Your task to perform on an android device: add a contact Image 0: 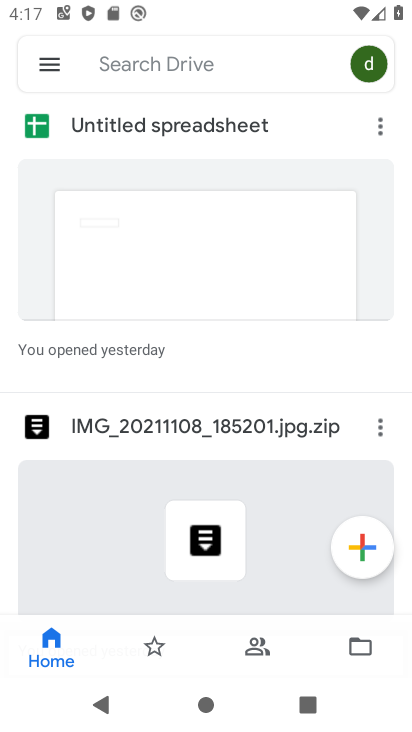
Step 0: press home button
Your task to perform on an android device: add a contact Image 1: 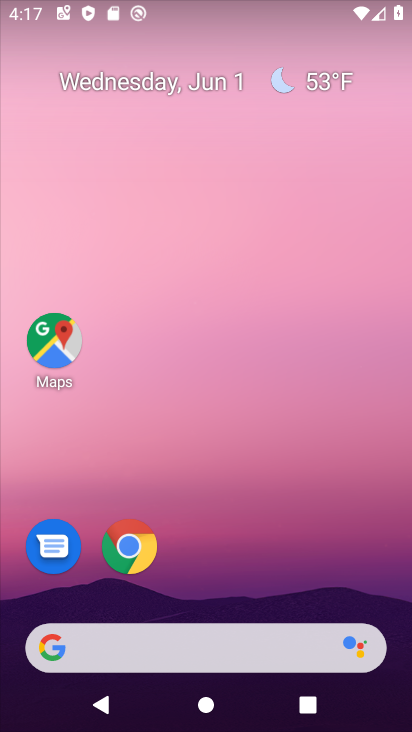
Step 1: drag from (208, 543) to (156, 162)
Your task to perform on an android device: add a contact Image 2: 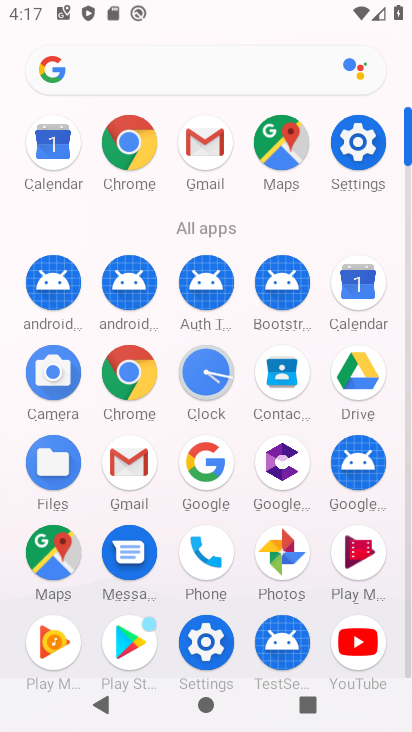
Step 2: click (267, 372)
Your task to perform on an android device: add a contact Image 3: 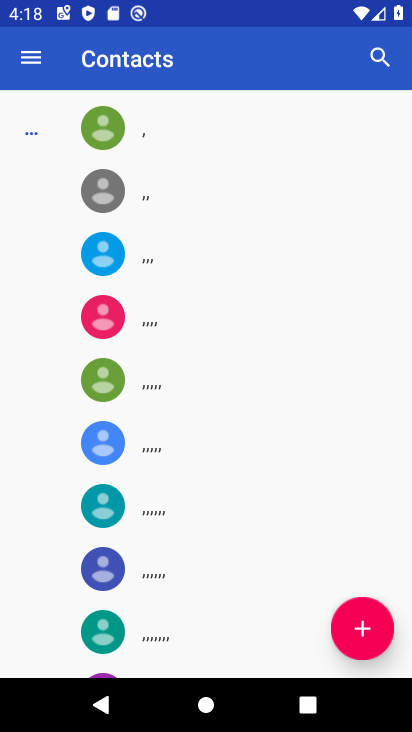
Step 3: click (362, 631)
Your task to perform on an android device: add a contact Image 4: 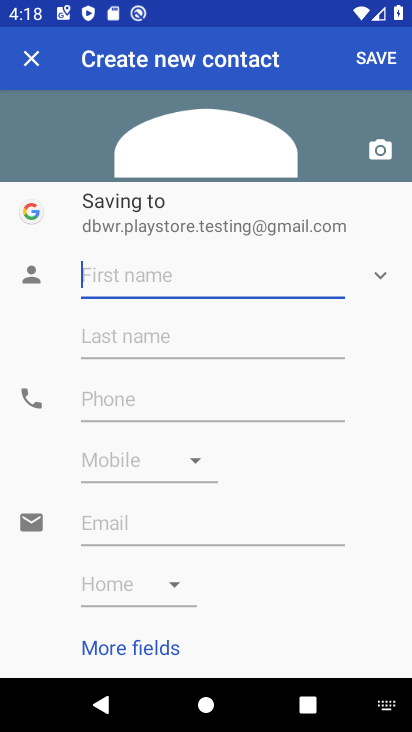
Step 4: type "gfhgff"
Your task to perform on an android device: add a contact Image 5: 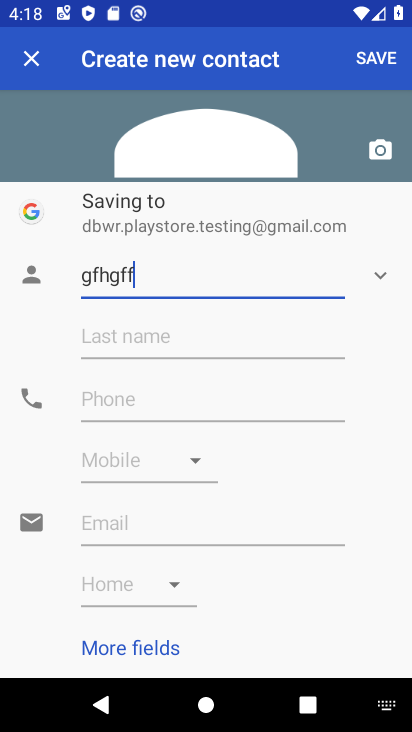
Step 5: click (158, 398)
Your task to perform on an android device: add a contact Image 6: 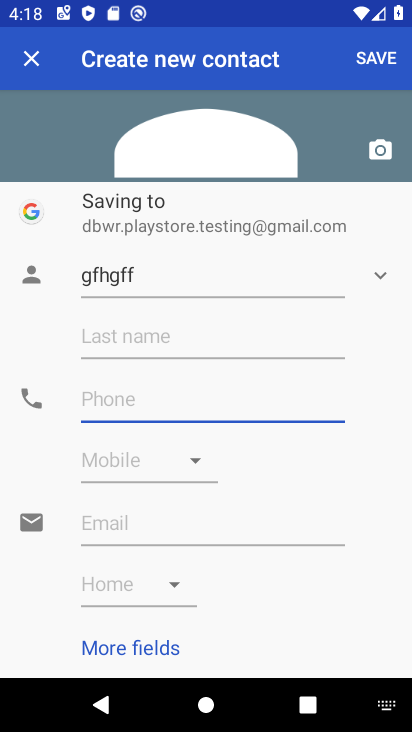
Step 6: type "9876789876"
Your task to perform on an android device: add a contact Image 7: 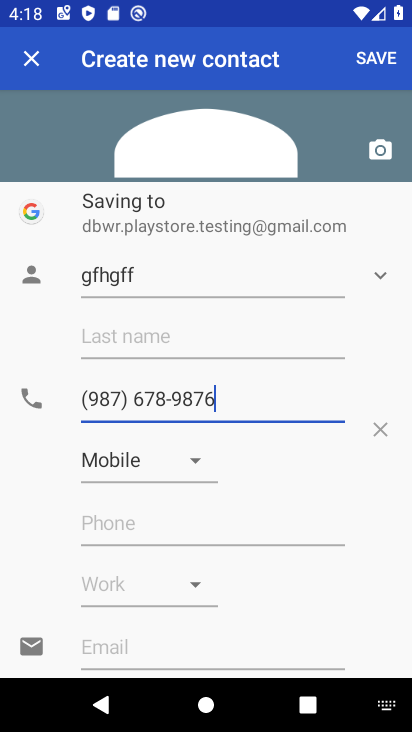
Step 7: click (377, 55)
Your task to perform on an android device: add a contact Image 8: 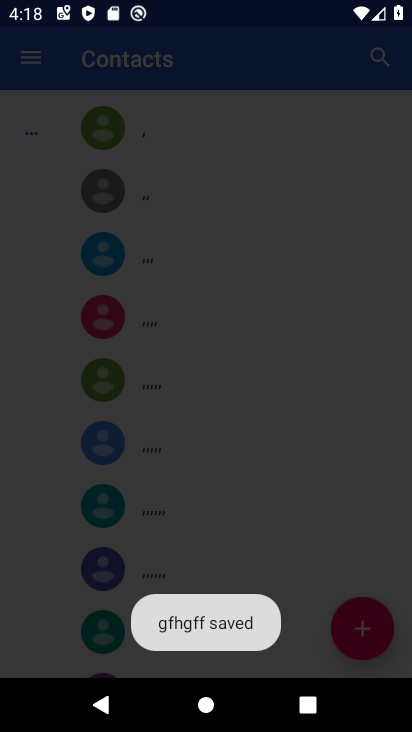
Step 8: click (374, 51)
Your task to perform on an android device: add a contact Image 9: 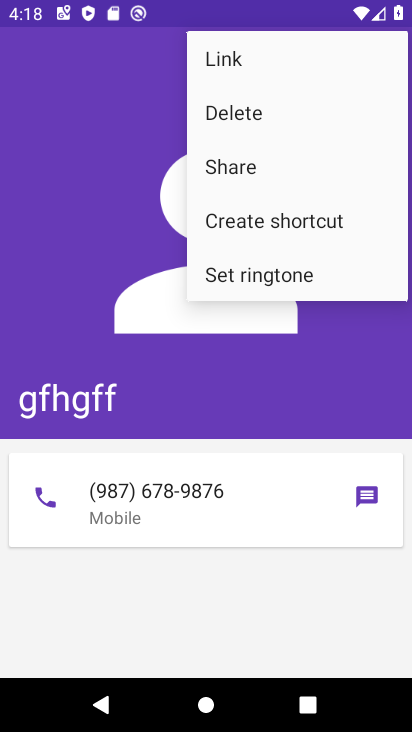
Step 9: task complete